Your task to perform on an android device: change notifications settings Image 0: 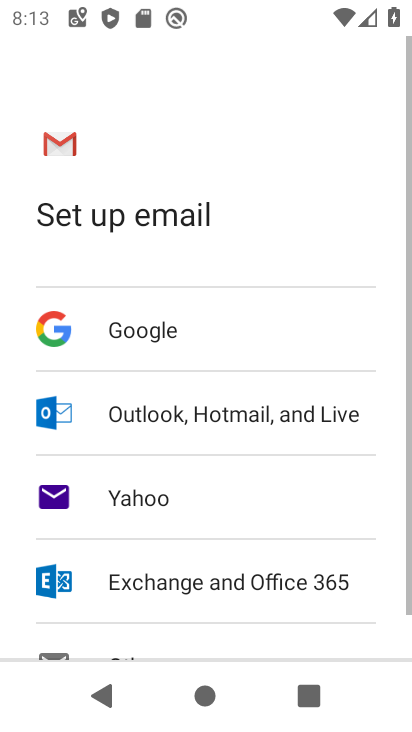
Step 0: press home button
Your task to perform on an android device: change notifications settings Image 1: 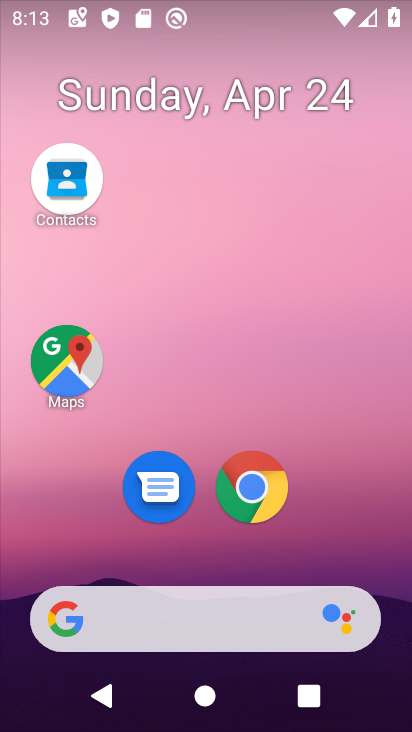
Step 1: drag from (212, 580) to (406, 308)
Your task to perform on an android device: change notifications settings Image 2: 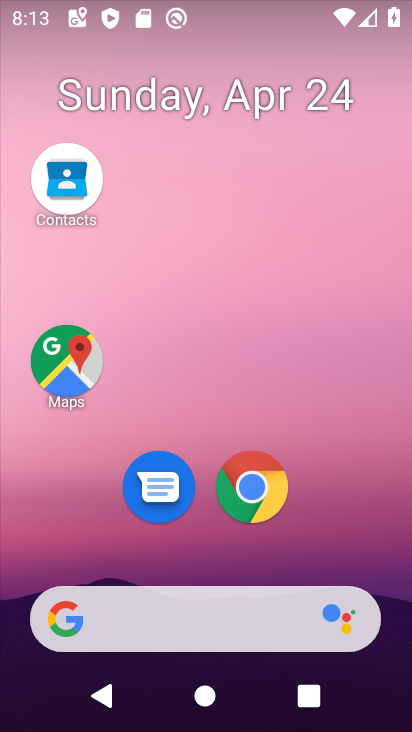
Step 2: drag from (202, 577) to (13, 8)
Your task to perform on an android device: change notifications settings Image 3: 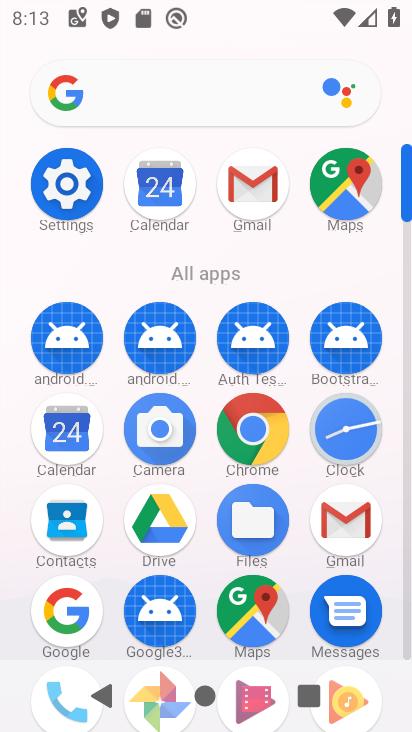
Step 3: click (69, 184)
Your task to perform on an android device: change notifications settings Image 4: 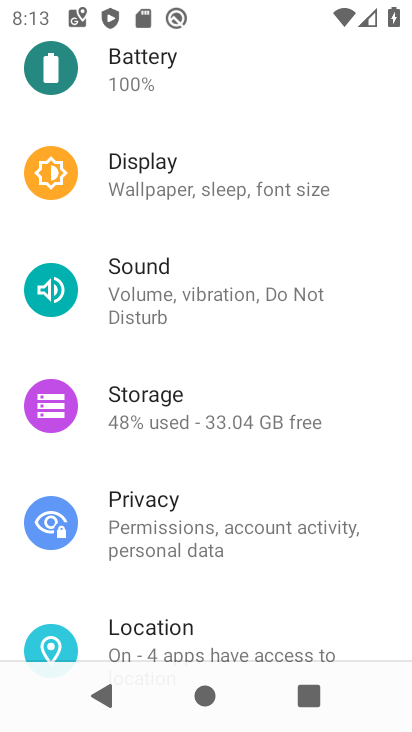
Step 4: drag from (240, 516) to (169, 688)
Your task to perform on an android device: change notifications settings Image 5: 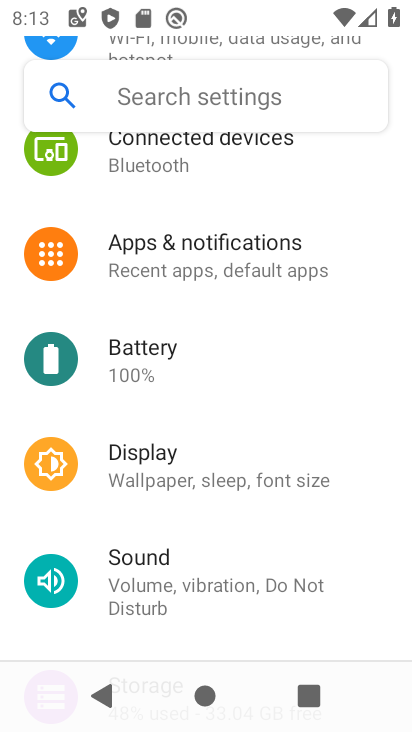
Step 5: click (193, 243)
Your task to perform on an android device: change notifications settings Image 6: 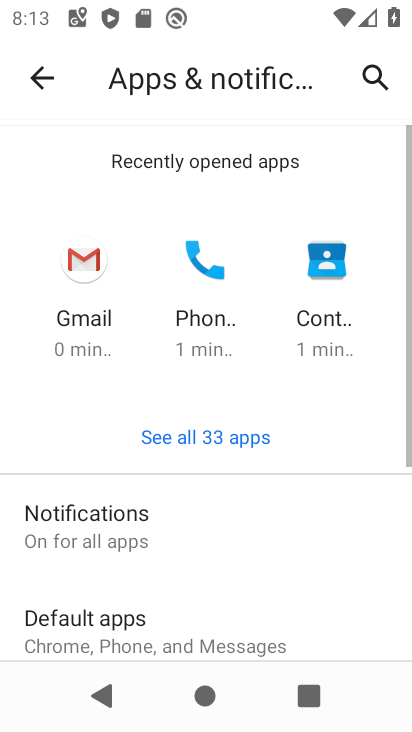
Step 6: click (138, 524)
Your task to perform on an android device: change notifications settings Image 7: 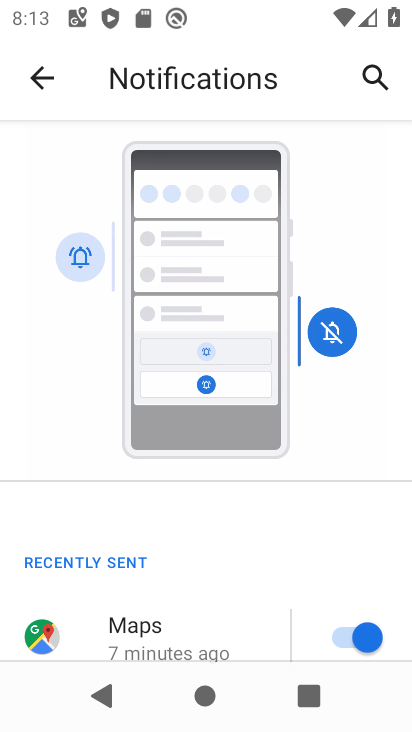
Step 7: drag from (251, 568) to (315, 35)
Your task to perform on an android device: change notifications settings Image 8: 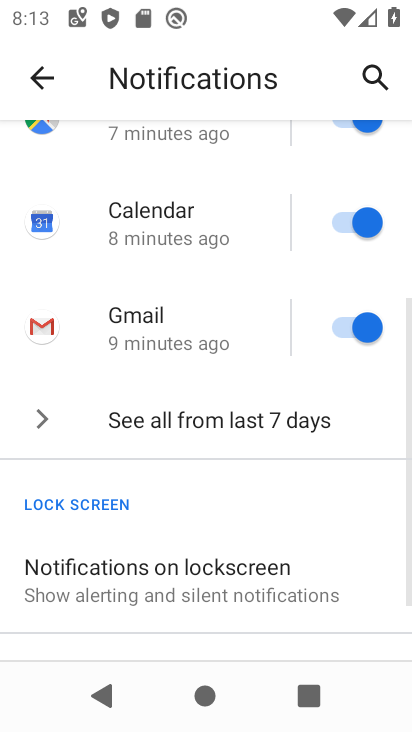
Step 8: drag from (259, 548) to (254, 446)
Your task to perform on an android device: change notifications settings Image 9: 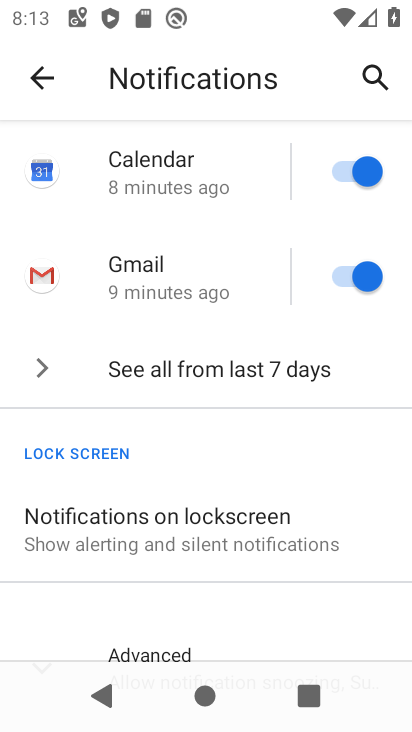
Step 9: click (203, 375)
Your task to perform on an android device: change notifications settings Image 10: 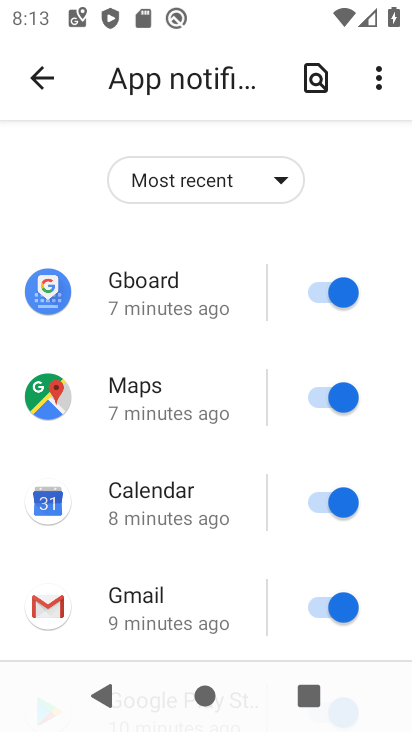
Step 10: click (273, 166)
Your task to perform on an android device: change notifications settings Image 11: 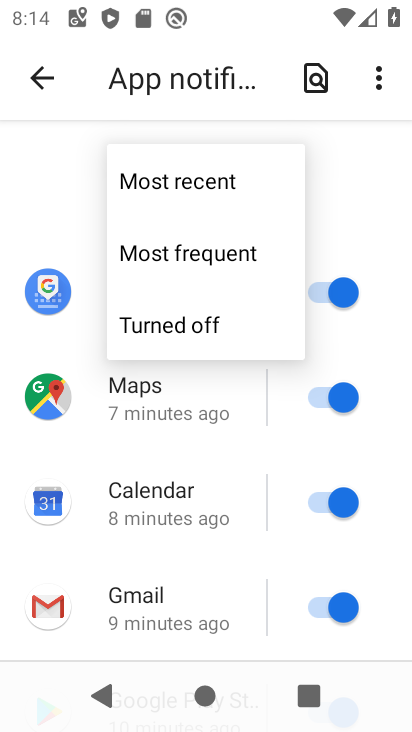
Step 11: click (211, 335)
Your task to perform on an android device: change notifications settings Image 12: 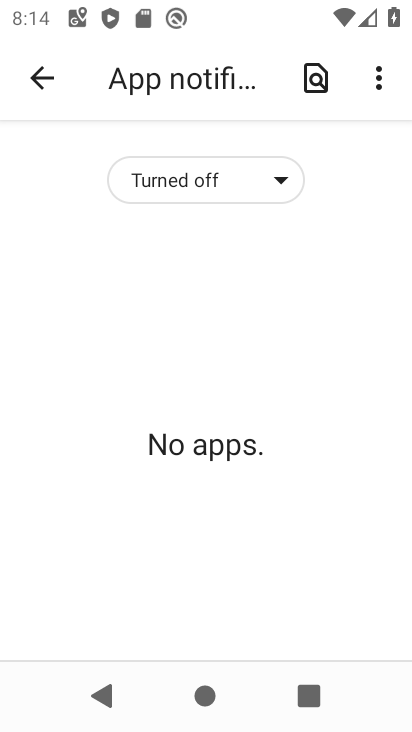
Step 12: task complete